Your task to perform on an android device: Go to Google maps Image 0: 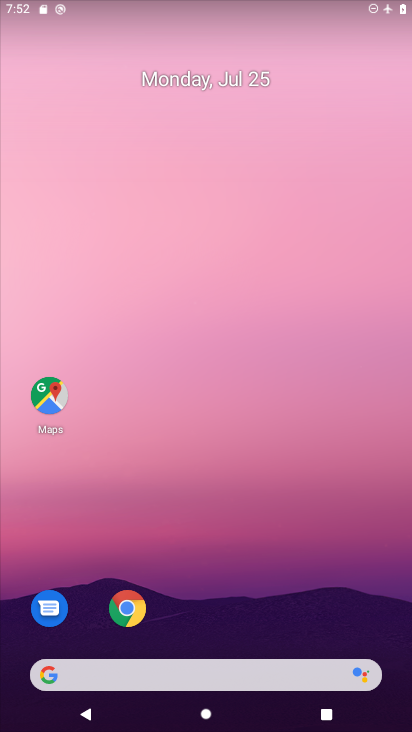
Step 0: drag from (324, 576) to (261, 67)
Your task to perform on an android device: Go to Google maps Image 1: 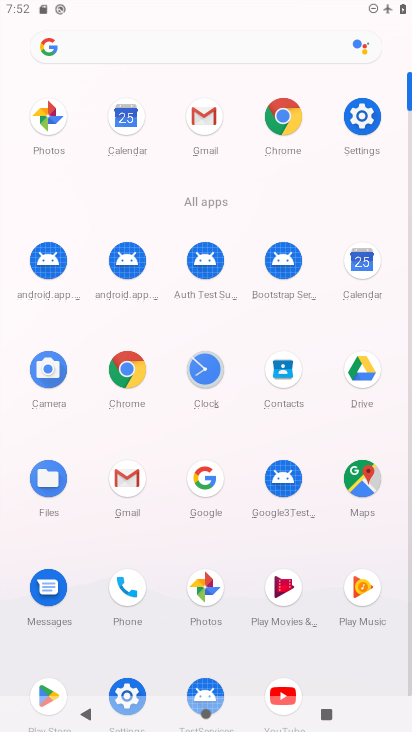
Step 1: click (371, 480)
Your task to perform on an android device: Go to Google maps Image 2: 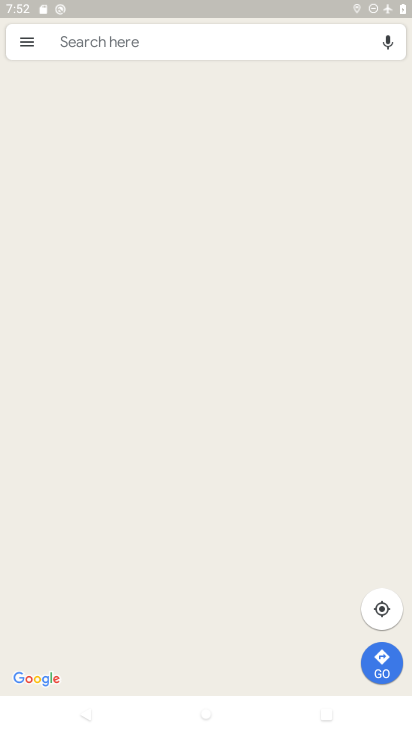
Step 2: task complete